Your task to perform on an android device: toggle priority inbox in the gmail app Image 0: 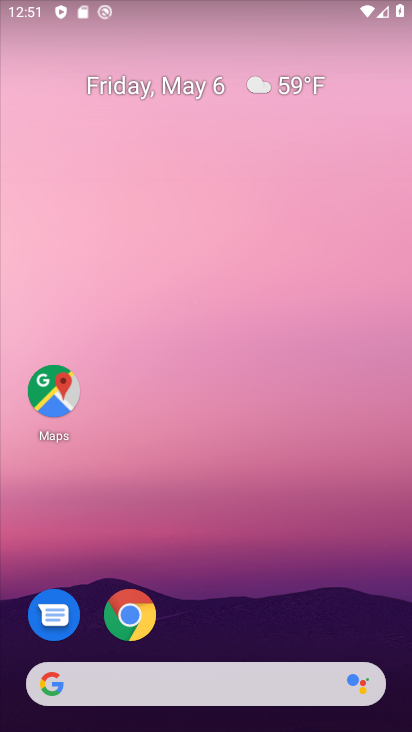
Step 0: drag from (275, 603) to (325, 64)
Your task to perform on an android device: toggle priority inbox in the gmail app Image 1: 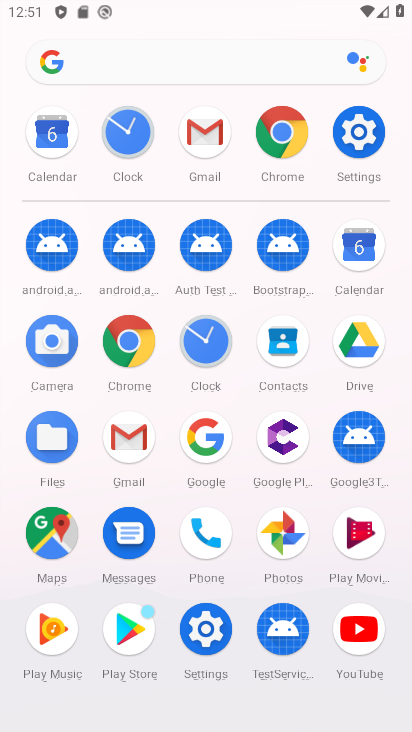
Step 1: click (133, 440)
Your task to perform on an android device: toggle priority inbox in the gmail app Image 2: 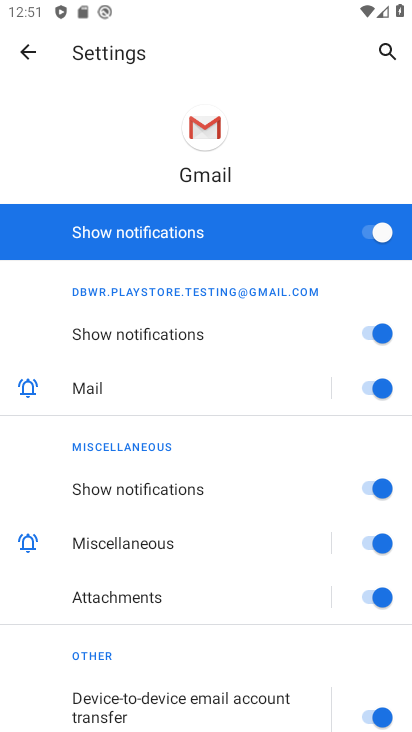
Step 2: click (28, 45)
Your task to perform on an android device: toggle priority inbox in the gmail app Image 3: 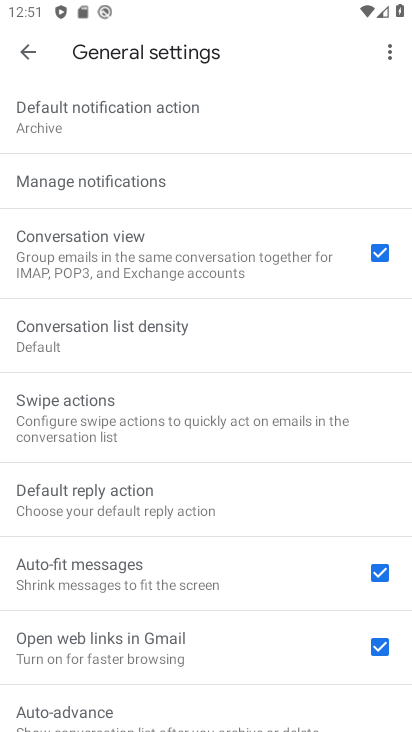
Step 3: click (27, 47)
Your task to perform on an android device: toggle priority inbox in the gmail app Image 4: 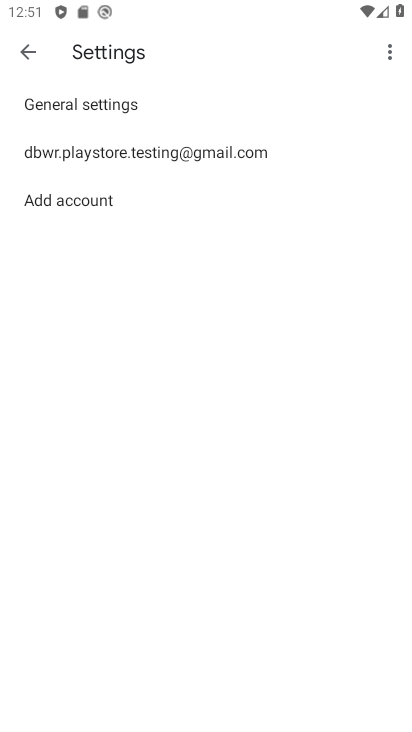
Step 4: click (91, 147)
Your task to perform on an android device: toggle priority inbox in the gmail app Image 5: 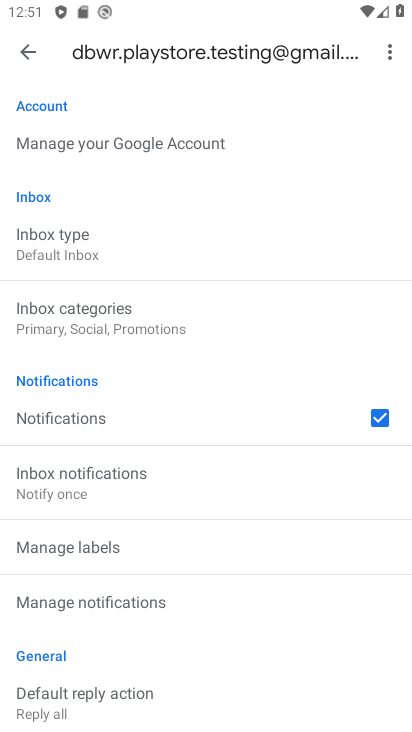
Step 5: click (59, 232)
Your task to perform on an android device: toggle priority inbox in the gmail app Image 6: 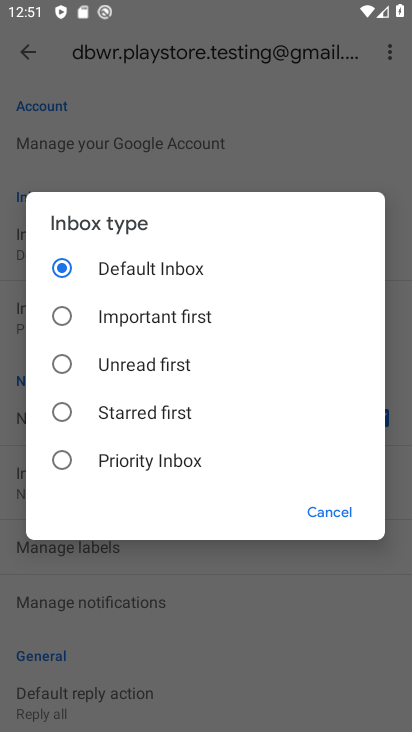
Step 6: click (54, 445)
Your task to perform on an android device: toggle priority inbox in the gmail app Image 7: 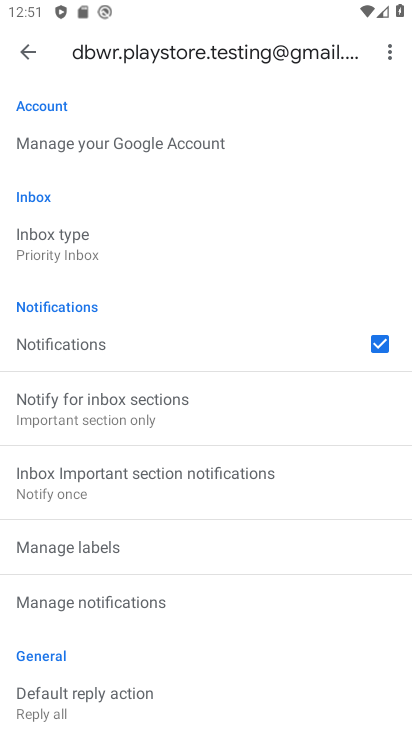
Step 7: task complete